Your task to perform on an android device: find photos in the google photos app Image 0: 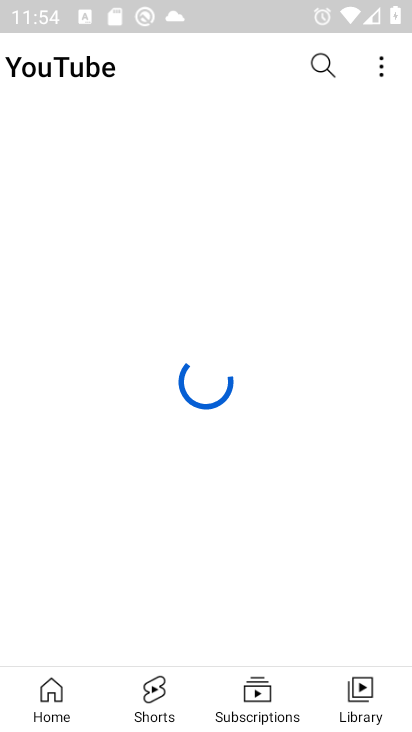
Step 0: press home button
Your task to perform on an android device: find photos in the google photos app Image 1: 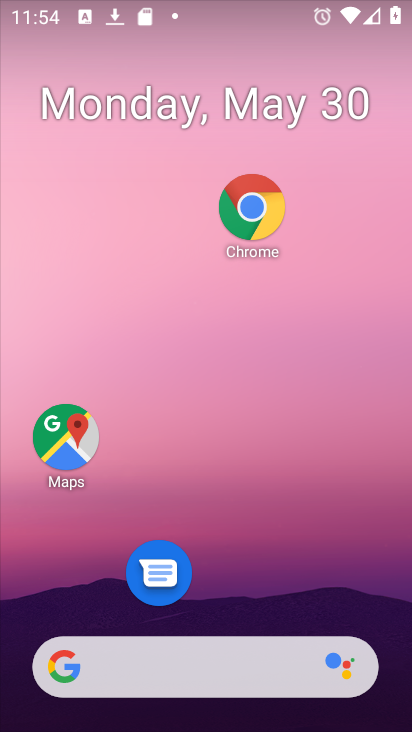
Step 1: drag from (238, 648) to (225, 219)
Your task to perform on an android device: find photos in the google photos app Image 2: 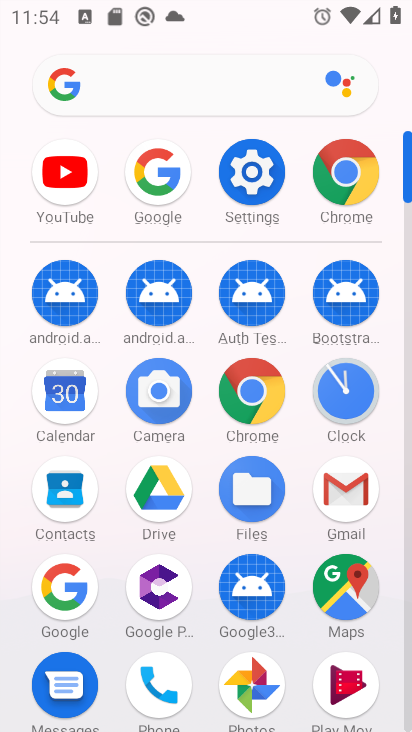
Step 2: drag from (257, 502) to (274, 222)
Your task to perform on an android device: find photos in the google photos app Image 3: 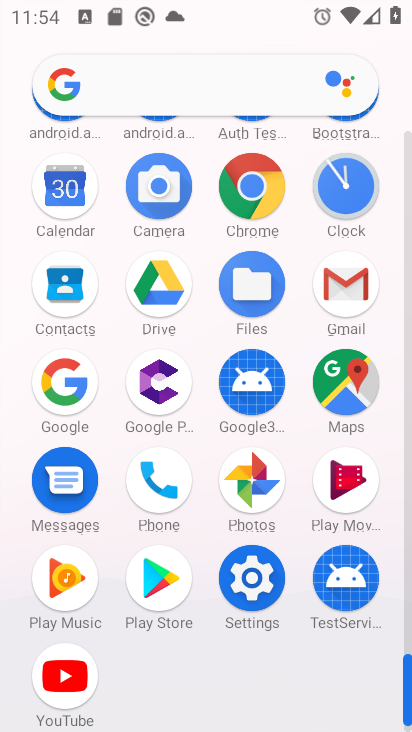
Step 3: click (259, 484)
Your task to perform on an android device: find photos in the google photos app Image 4: 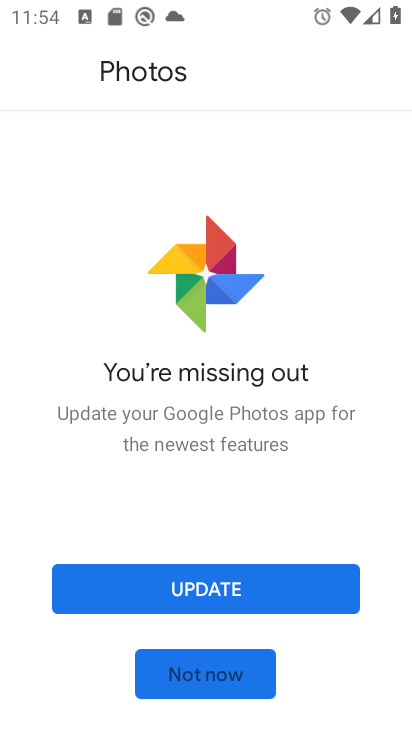
Step 4: task complete